Your task to perform on an android device: Open the stopwatch Image 0: 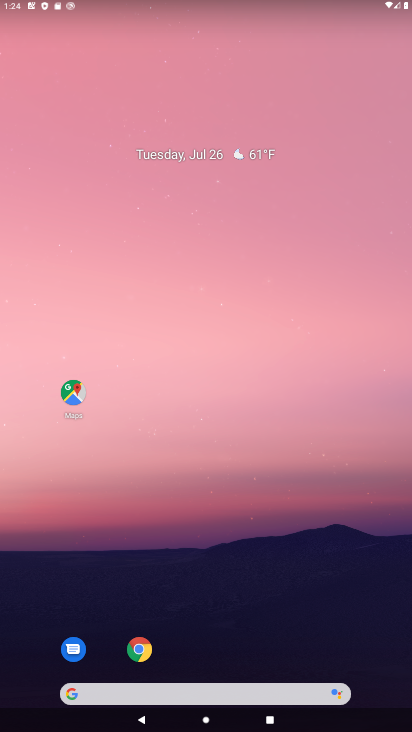
Step 0: drag from (226, 530) to (230, 104)
Your task to perform on an android device: Open the stopwatch Image 1: 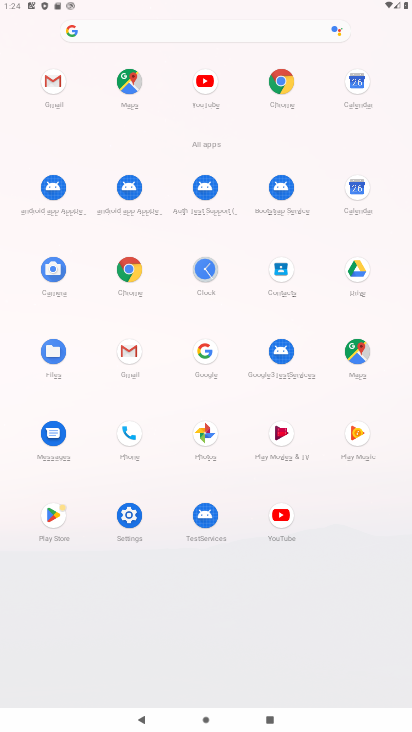
Step 1: click (201, 274)
Your task to perform on an android device: Open the stopwatch Image 2: 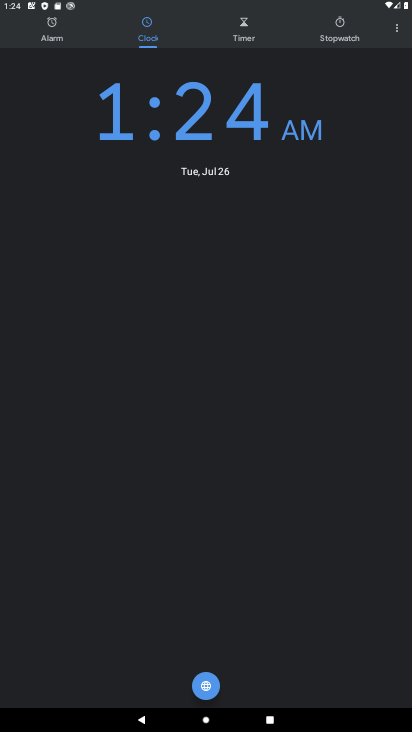
Step 2: click (332, 100)
Your task to perform on an android device: Open the stopwatch Image 3: 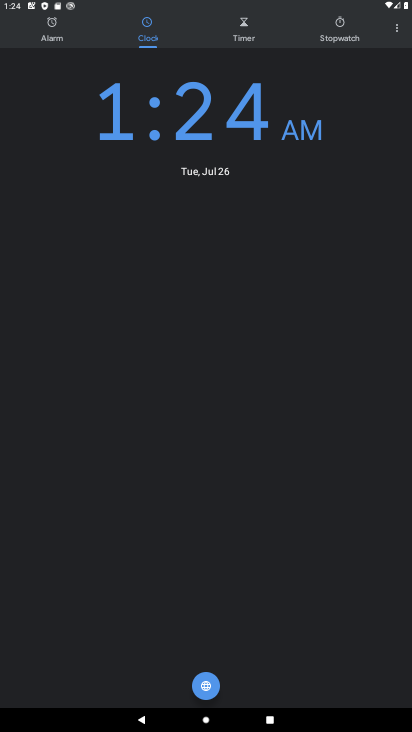
Step 3: click (334, 26)
Your task to perform on an android device: Open the stopwatch Image 4: 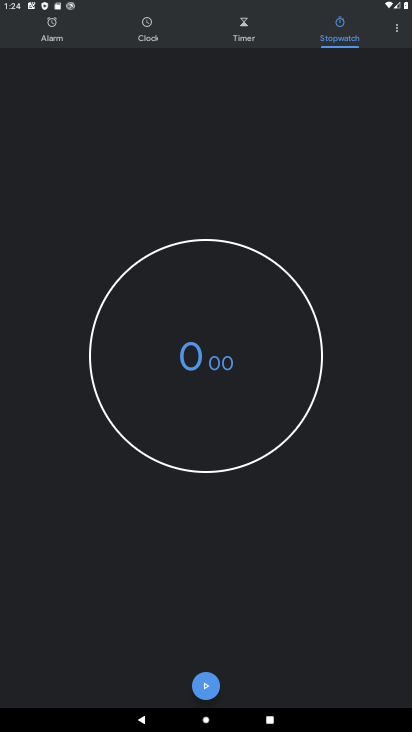
Step 4: task complete